Your task to perform on an android device: open sync settings in chrome Image 0: 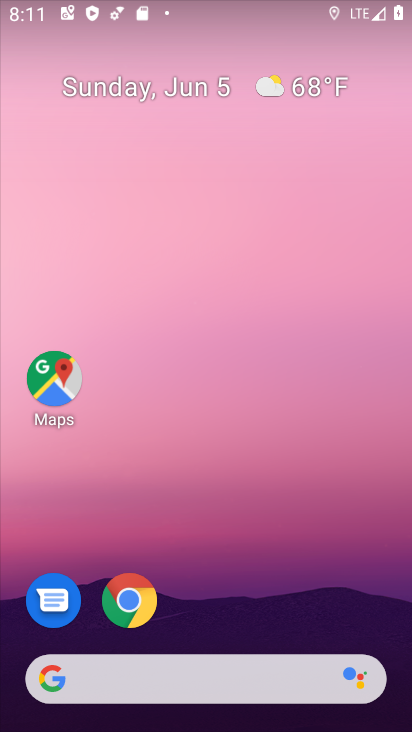
Step 0: click (140, 599)
Your task to perform on an android device: open sync settings in chrome Image 1: 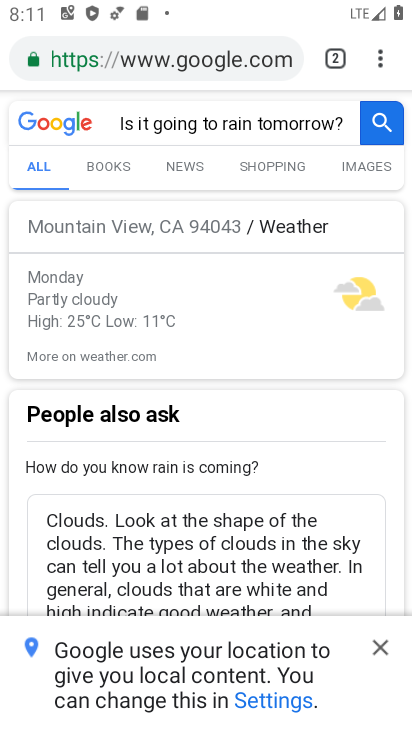
Step 1: click (377, 55)
Your task to perform on an android device: open sync settings in chrome Image 2: 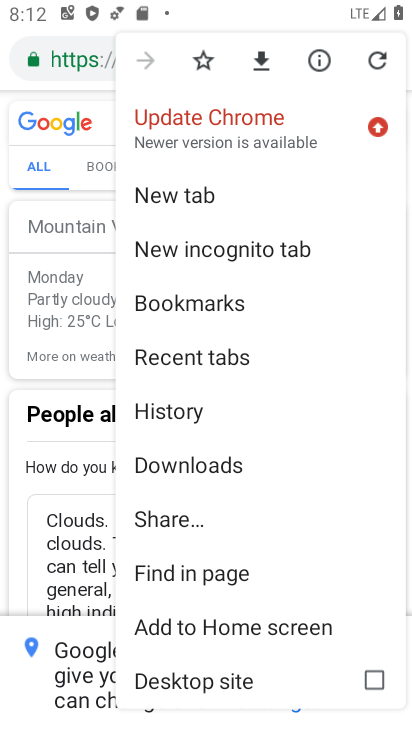
Step 2: drag from (271, 517) to (290, 246)
Your task to perform on an android device: open sync settings in chrome Image 3: 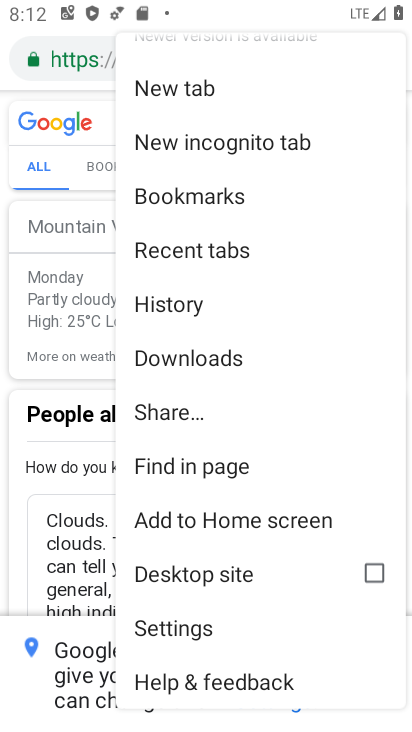
Step 3: click (199, 626)
Your task to perform on an android device: open sync settings in chrome Image 4: 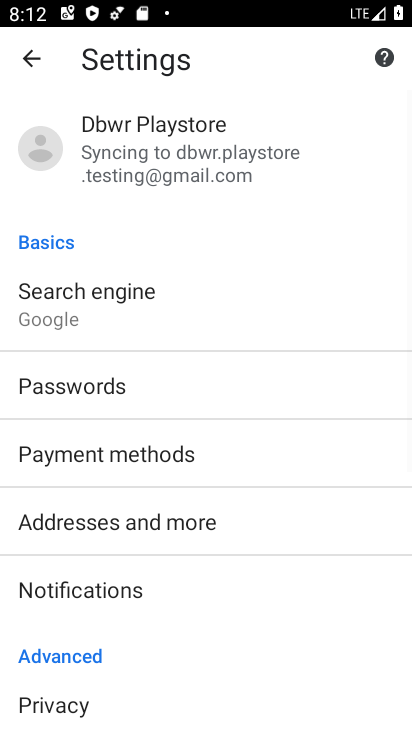
Step 4: click (199, 134)
Your task to perform on an android device: open sync settings in chrome Image 5: 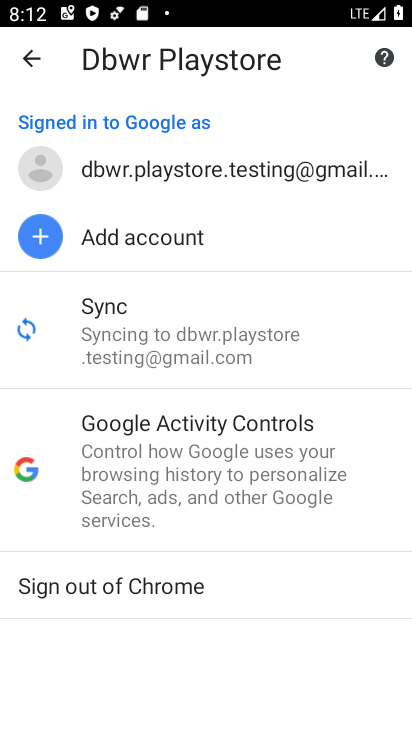
Step 5: click (186, 316)
Your task to perform on an android device: open sync settings in chrome Image 6: 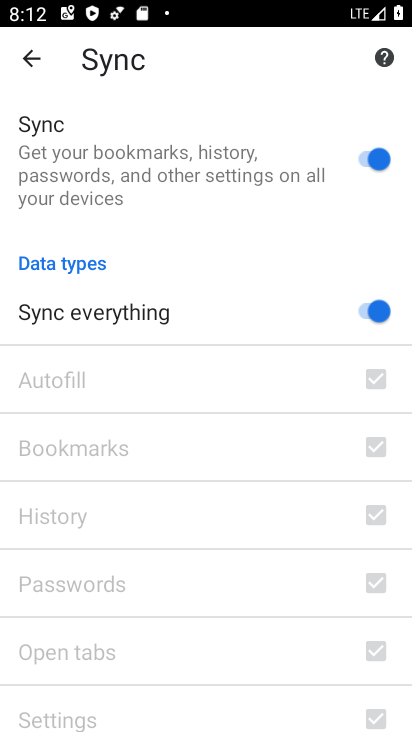
Step 6: task complete